Your task to perform on an android device: empty trash in google photos Image 0: 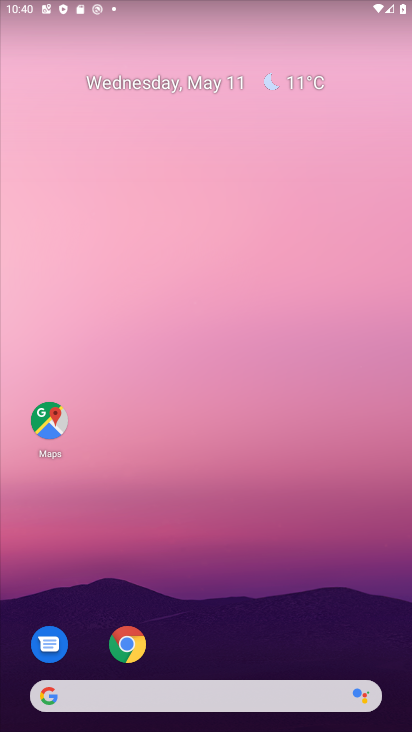
Step 0: drag from (218, 657) to (217, 76)
Your task to perform on an android device: empty trash in google photos Image 1: 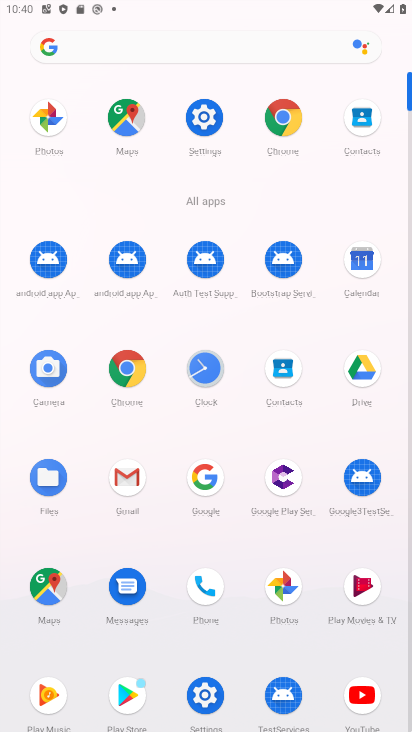
Step 1: click (281, 577)
Your task to perform on an android device: empty trash in google photos Image 2: 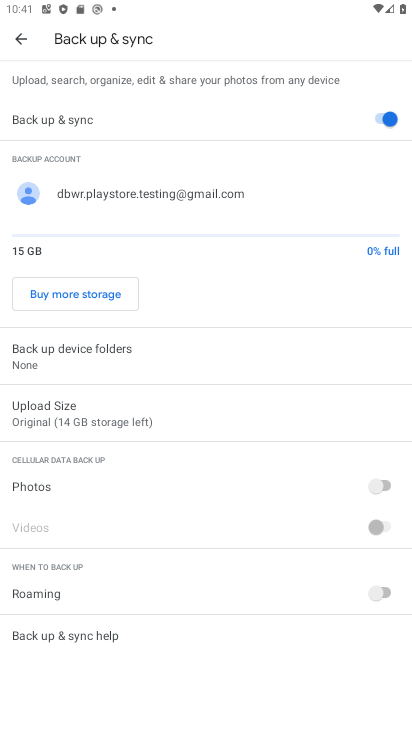
Step 2: drag from (149, 577) to (176, 122)
Your task to perform on an android device: empty trash in google photos Image 3: 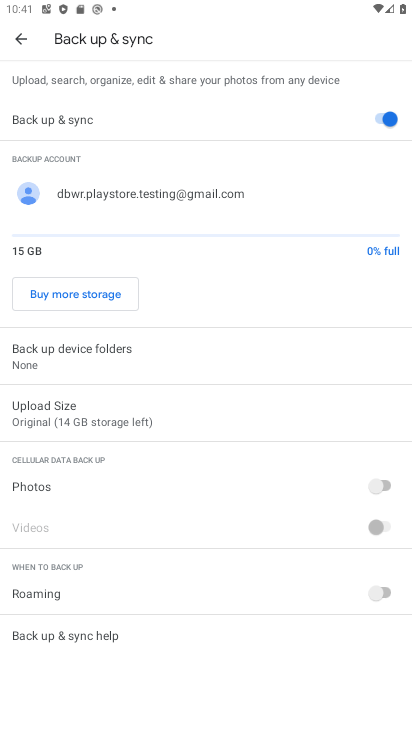
Step 3: click (15, 41)
Your task to perform on an android device: empty trash in google photos Image 4: 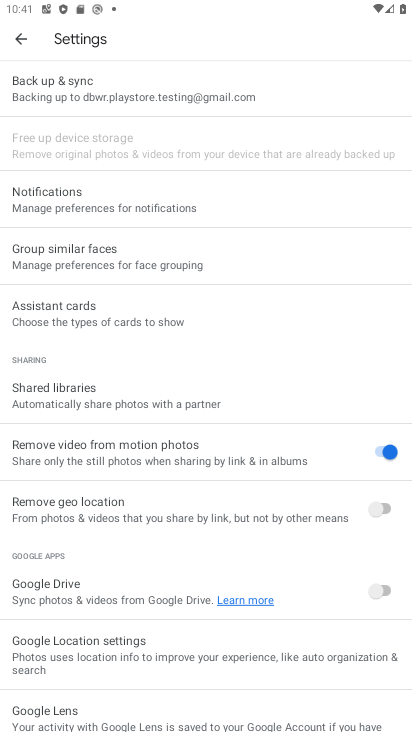
Step 4: click (17, 45)
Your task to perform on an android device: empty trash in google photos Image 5: 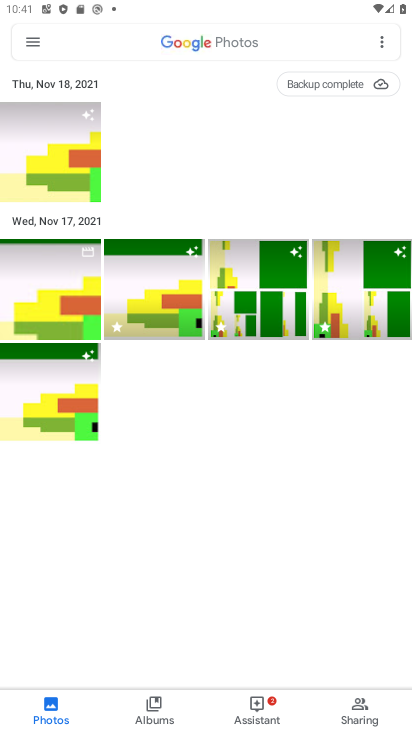
Step 5: click (27, 37)
Your task to perform on an android device: empty trash in google photos Image 6: 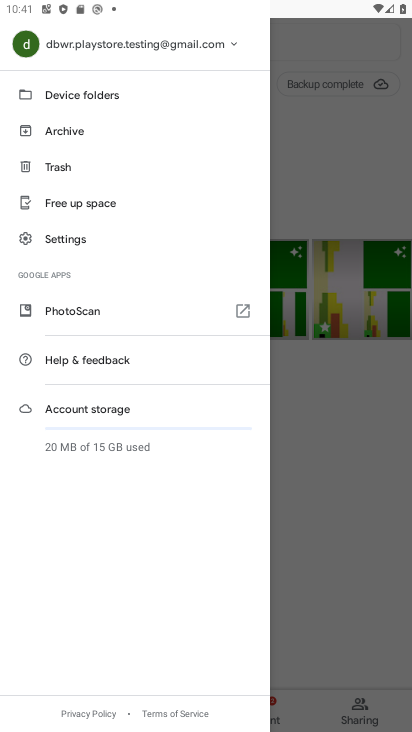
Step 6: click (62, 169)
Your task to perform on an android device: empty trash in google photos Image 7: 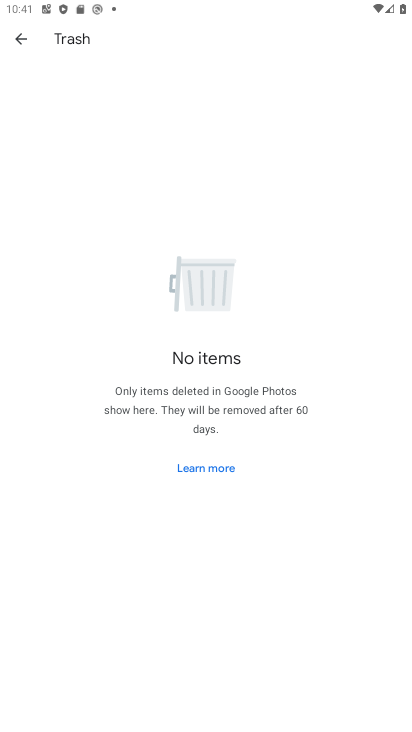
Step 7: task complete